Your task to perform on an android device: turn off location Image 0: 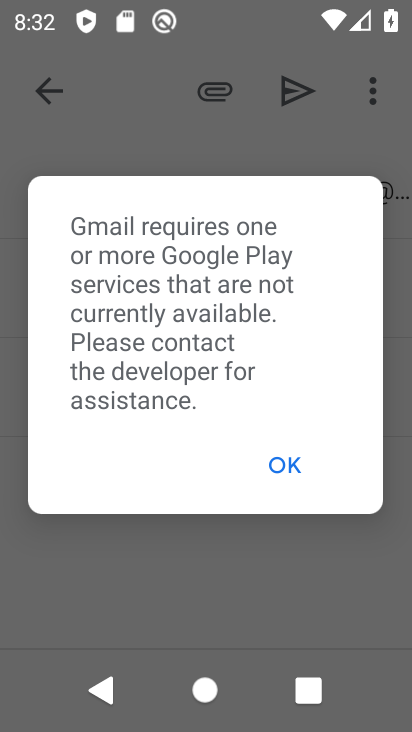
Step 0: press home button
Your task to perform on an android device: turn off location Image 1: 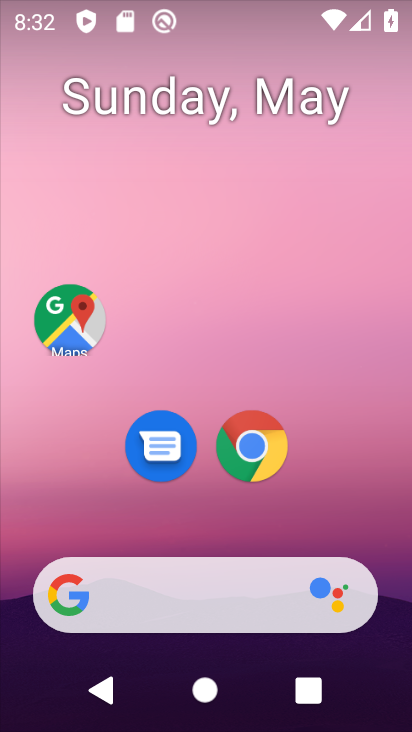
Step 1: drag from (91, 553) to (196, 44)
Your task to perform on an android device: turn off location Image 2: 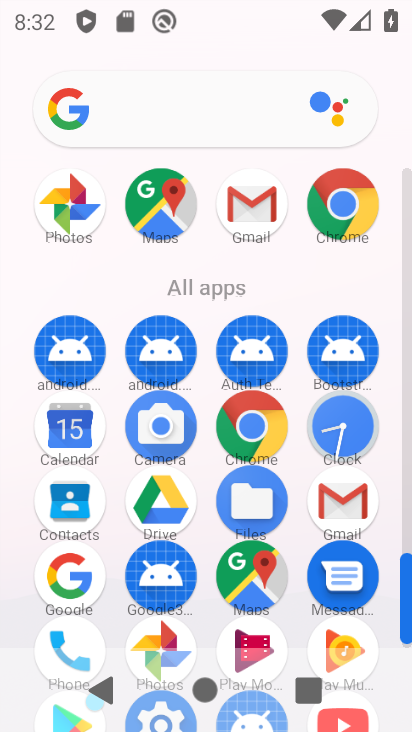
Step 2: drag from (145, 581) to (258, 356)
Your task to perform on an android device: turn off location Image 3: 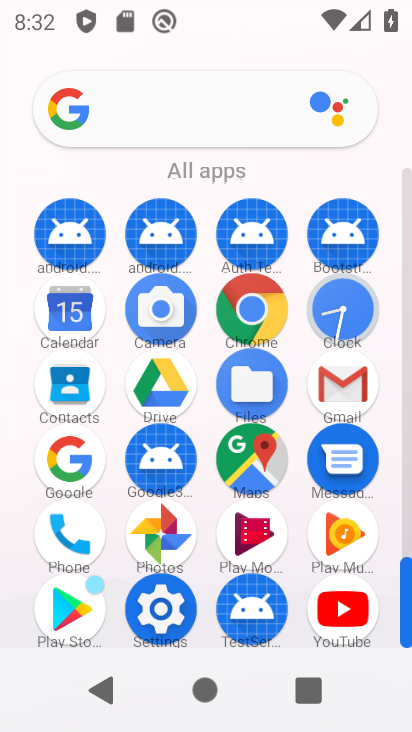
Step 3: click (146, 617)
Your task to perform on an android device: turn off location Image 4: 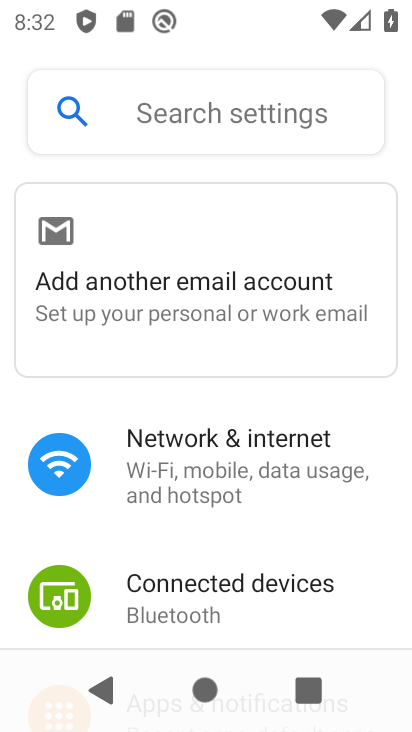
Step 4: drag from (200, 615) to (334, 133)
Your task to perform on an android device: turn off location Image 5: 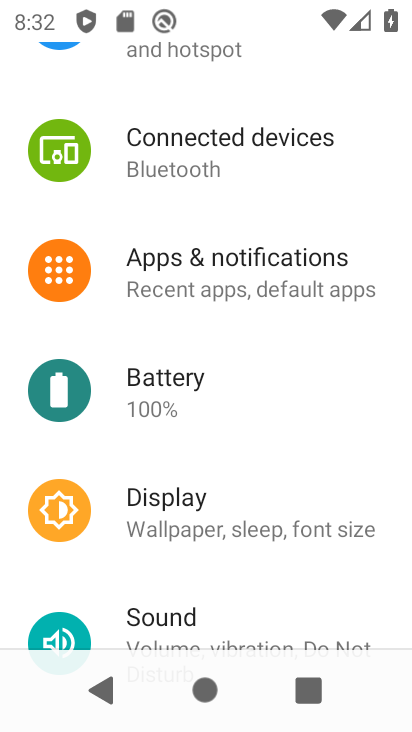
Step 5: drag from (254, 489) to (309, 239)
Your task to perform on an android device: turn off location Image 6: 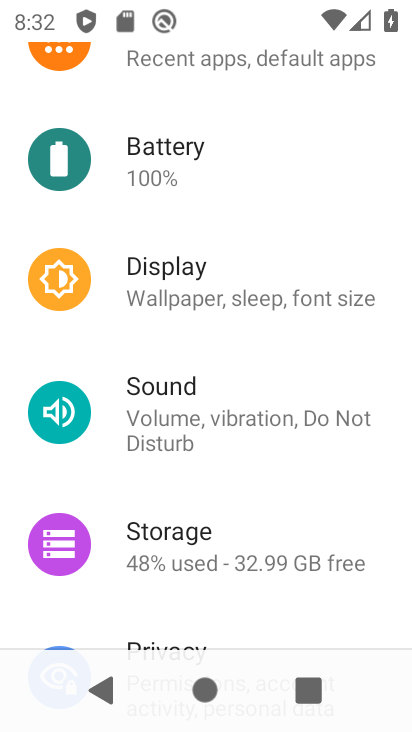
Step 6: drag from (249, 236) to (200, 547)
Your task to perform on an android device: turn off location Image 7: 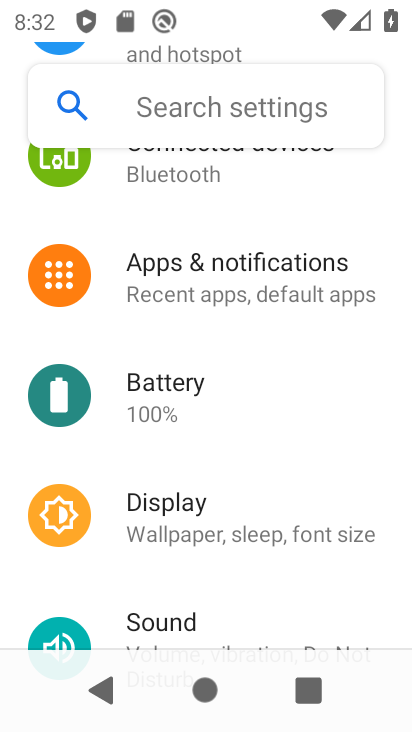
Step 7: drag from (181, 502) to (286, 111)
Your task to perform on an android device: turn off location Image 8: 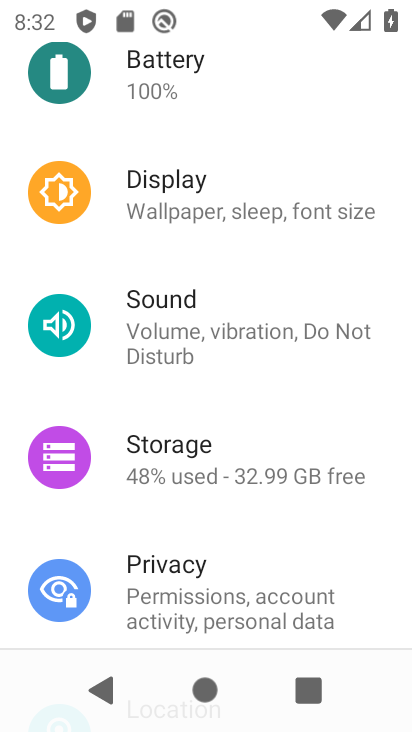
Step 8: drag from (166, 544) to (283, 146)
Your task to perform on an android device: turn off location Image 9: 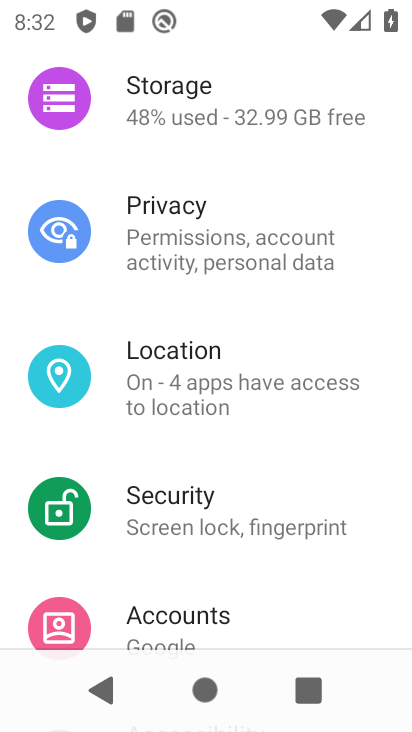
Step 9: click (171, 393)
Your task to perform on an android device: turn off location Image 10: 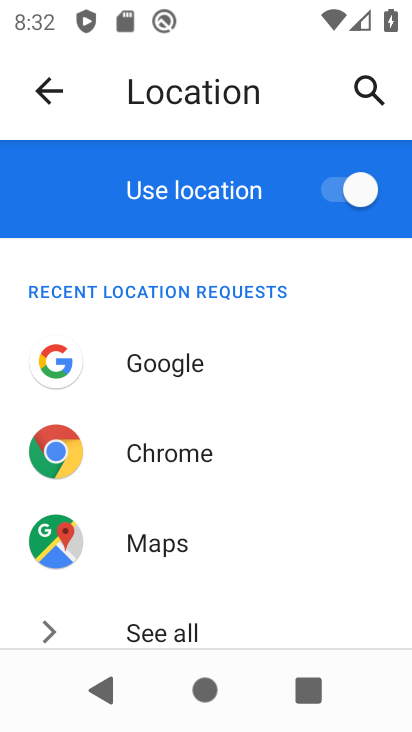
Step 10: click (339, 184)
Your task to perform on an android device: turn off location Image 11: 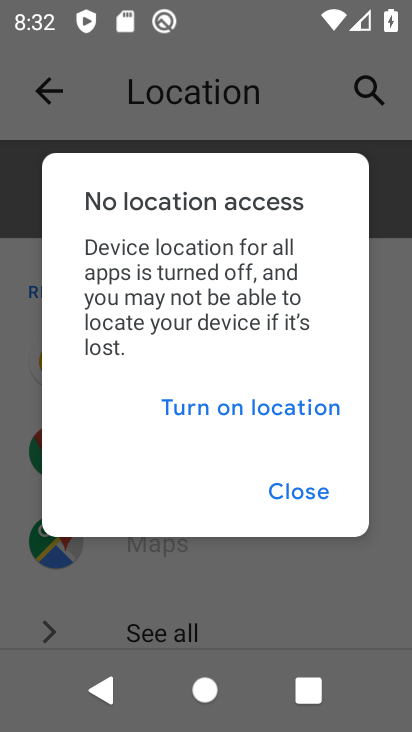
Step 11: click (312, 508)
Your task to perform on an android device: turn off location Image 12: 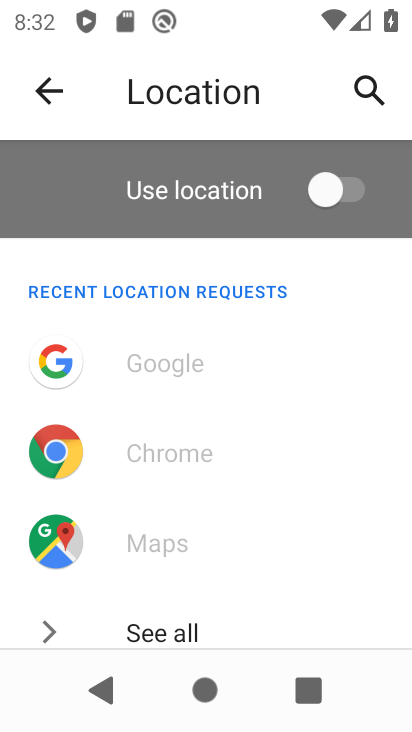
Step 12: task complete